Your task to perform on an android device: check google app version Image 0: 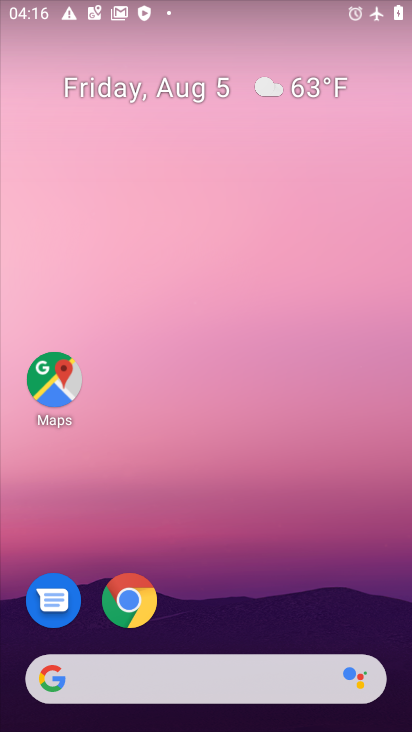
Step 0: drag from (168, 694) to (323, 200)
Your task to perform on an android device: check google app version Image 1: 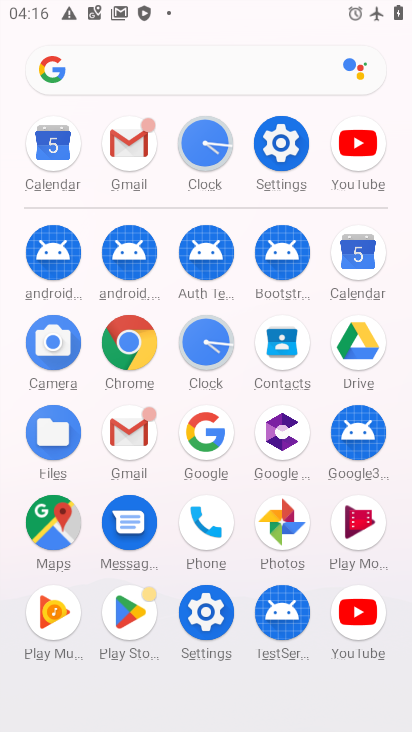
Step 1: click (201, 432)
Your task to perform on an android device: check google app version Image 2: 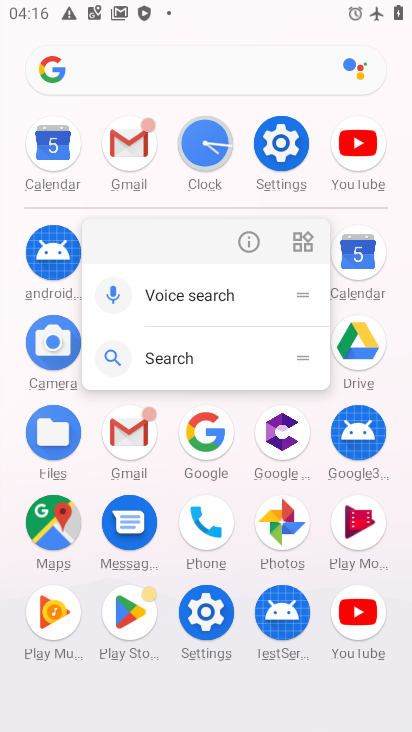
Step 2: click (255, 240)
Your task to perform on an android device: check google app version Image 3: 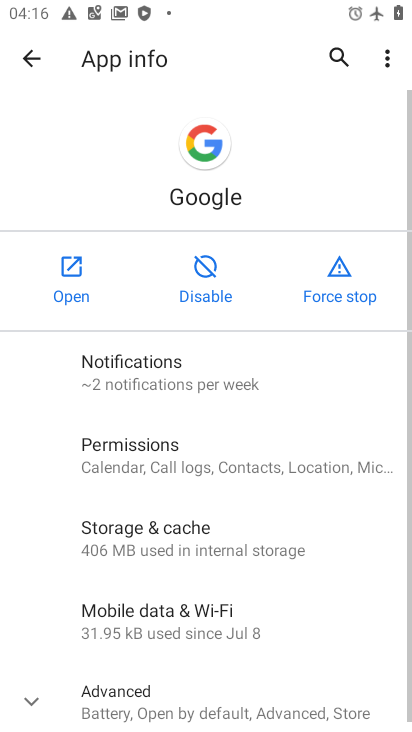
Step 3: drag from (193, 501) to (295, 375)
Your task to perform on an android device: check google app version Image 4: 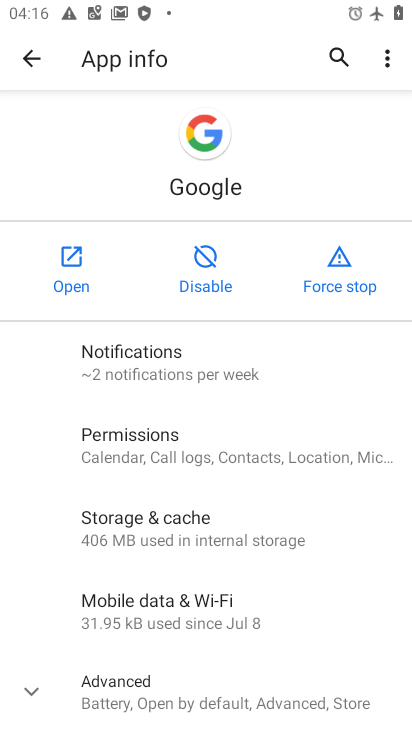
Step 4: drag from (183, 570) to (267, 437)
Your task to perform on an android device: check google app version Image 5: 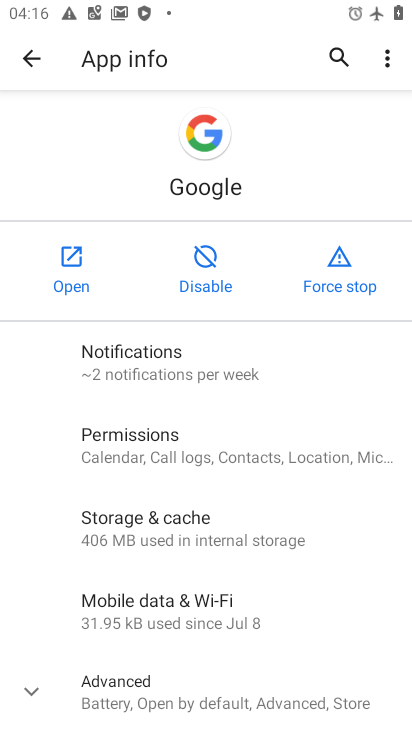
Step 5: click (169, 699)
Your task to perform on an android device: check google app version Image 6: 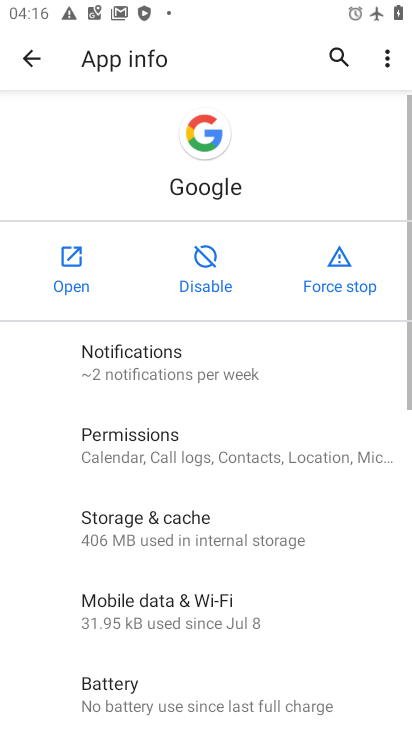
Step 6: task complete